Your task to perform on an android device: Turn off the flashlight Image 0: 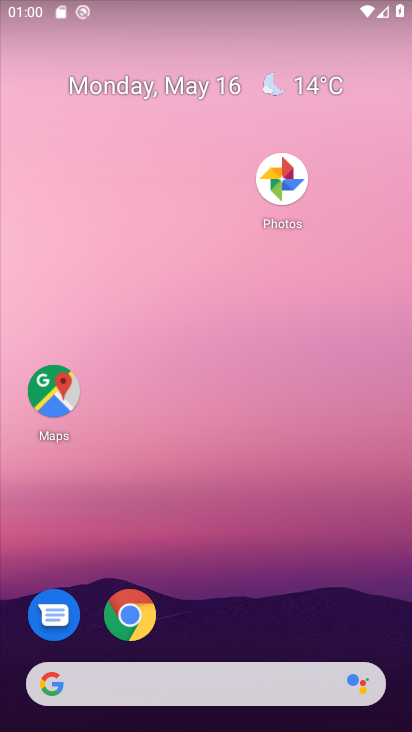
Step 0: drag from (355, 574) to (366, 157)
Your task to perform on an android device: Turn off the flashlight Image 1: 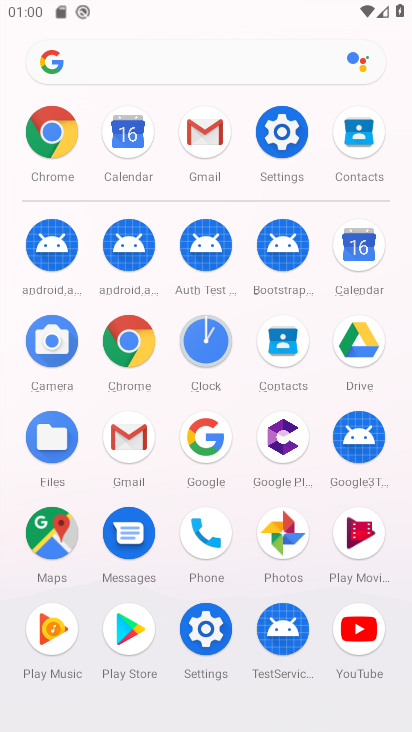
Step 1: click (280, 138)
Your task to perform on an android device: Turn off the flashlight Image 2: 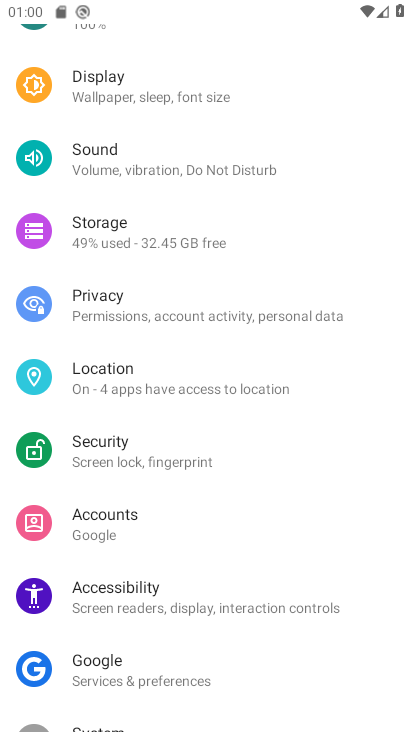
Step 2: drag from (299, 115) to (293, 454)
Your task to perform on an android device: Turn off the flashlight Image 3: 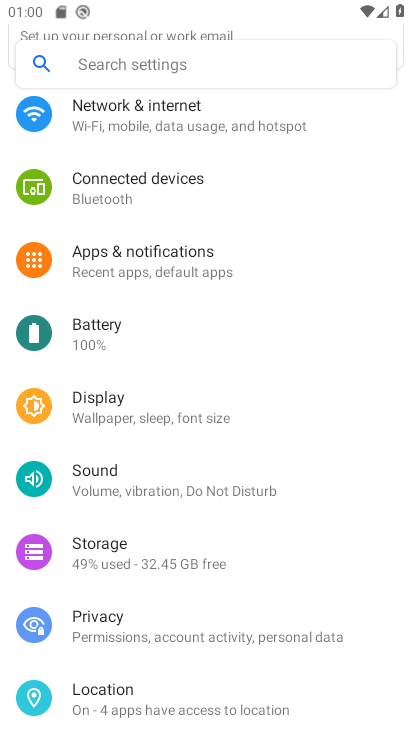
Step 3: drag from (291, 199) to (303, 516)
Your task to perform on an android device: Turn off the flashlight Image 4: 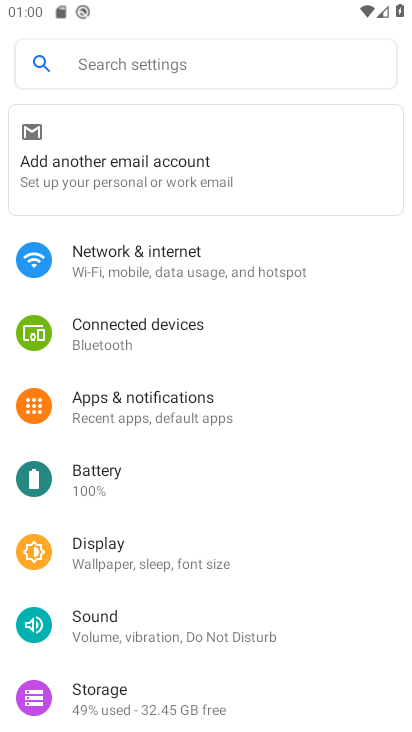
Step 4: click (216, 76)
Your task to perform on an android device: Turn off the flashlight Image 5: 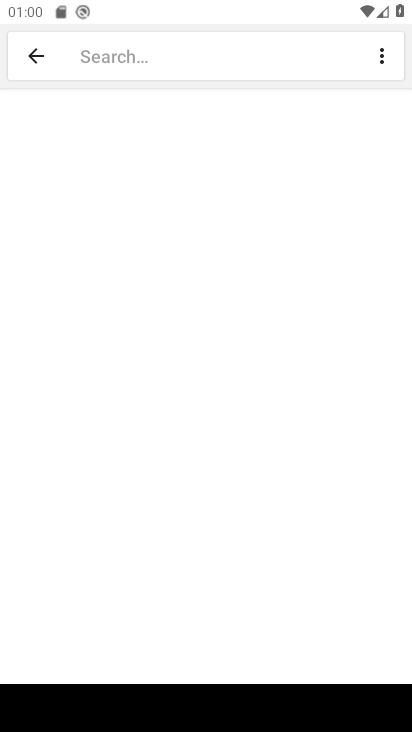
Step 5: type "flashlight"
Your task to perform on an android device: Turn off the flashlight Image 6: 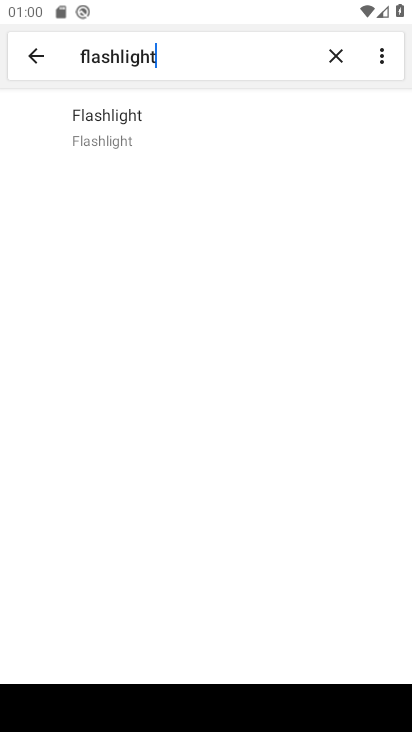
Step 6: click (109, 112)
Your task to perform on an android device: Turn off the flashlight Image 7: 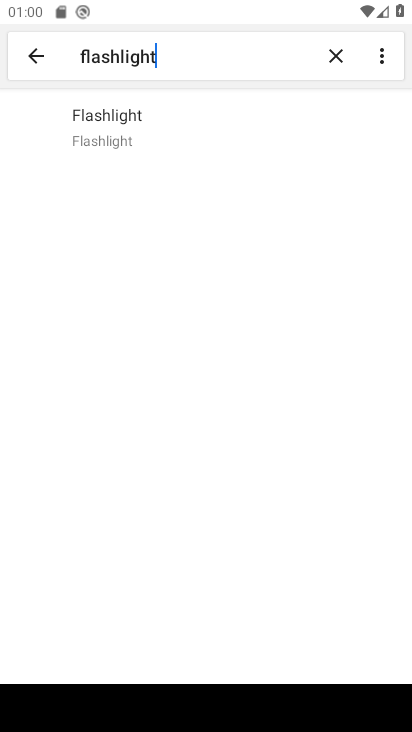
Step 7: task complete